Your task to perform on an android device: Open display settings Image 0: 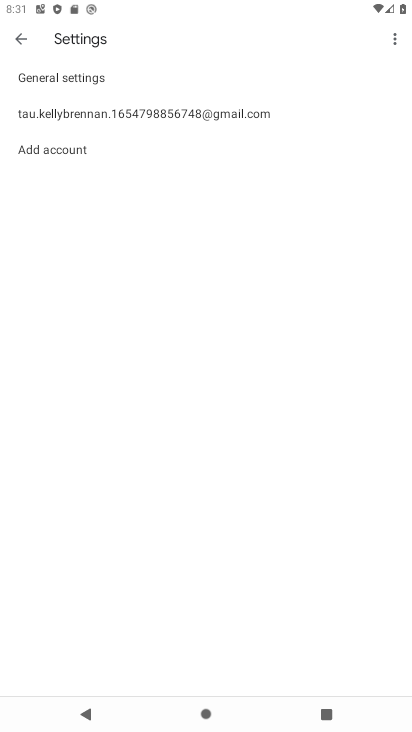
Step 0: press home button
Your task to perform on an android device: Open display settings Image 1: 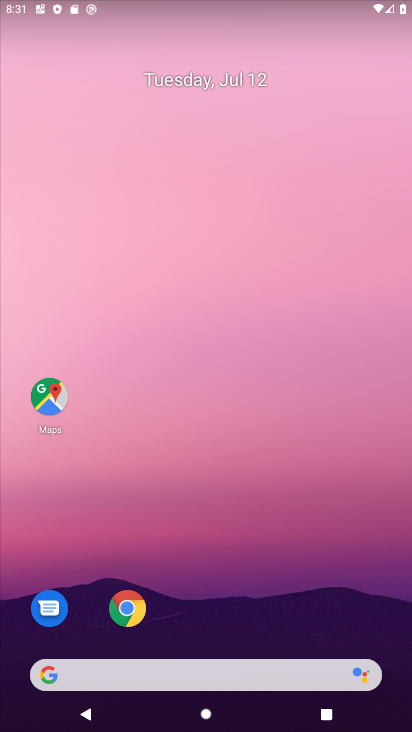
Step 1: drag from (216, 8) to (285, 605)
Your task to perform on an android device: Open display settings Image 2: 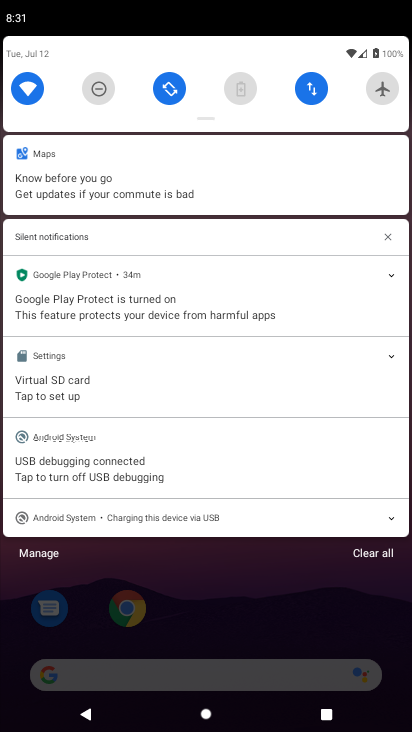
Step 2: drag from (249, 54) to (335, 553)
Your task to perform on an android device: Open display settings Image 3: 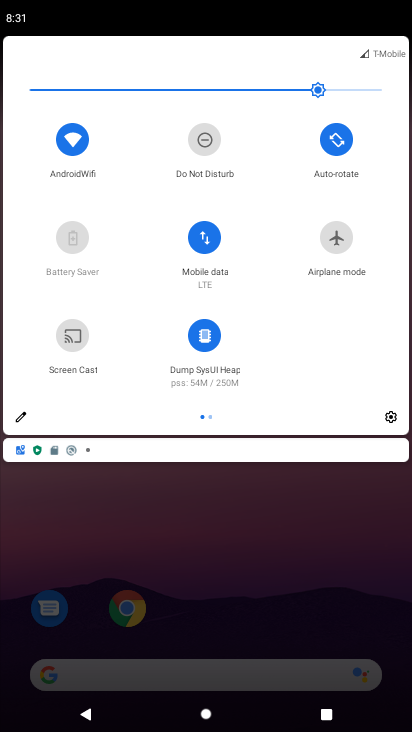
Step 3: click (388, 410)
Your task to perform on an android device: Open display settings Image 4: 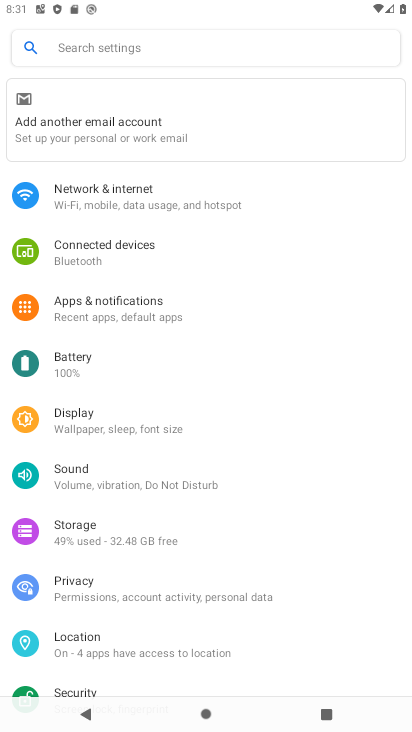
Step 4: click (139, 421)
Your task to perform on an android device: Open display settings Image 5: 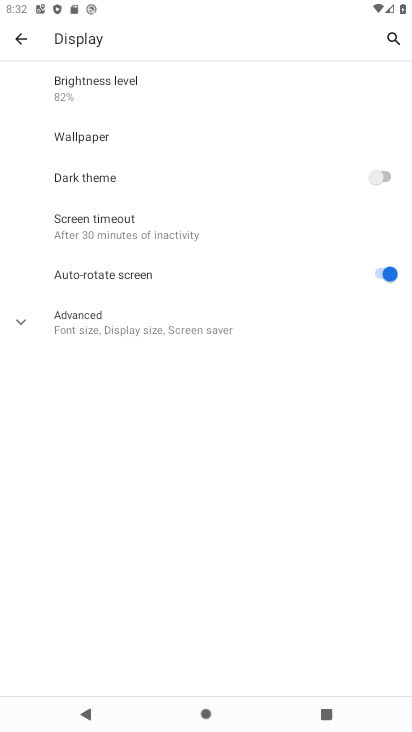
Step 5: task complete